Your task to perform on an android device: turn vacation reply on in the gmail app Image 0: 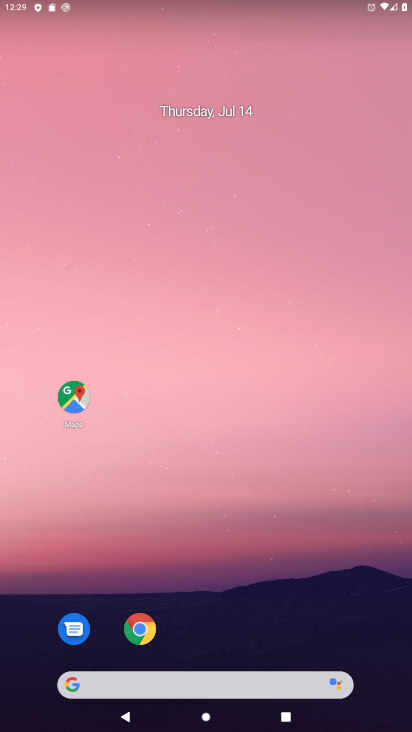
Step 0: drag from (209, 660) to (66, 55)
Your task to perform on an android device: turn vacation reply on in the gmail app Image 1: 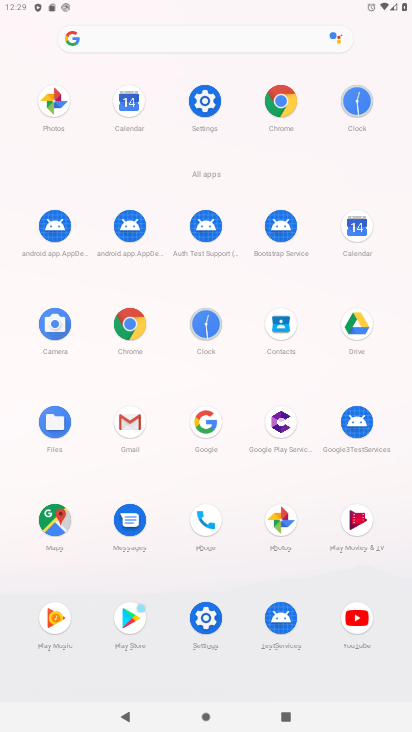
Step 1: click (140, 433)
Your task to perform on an android device: turn vacation reply on in the gmail app Image 2: 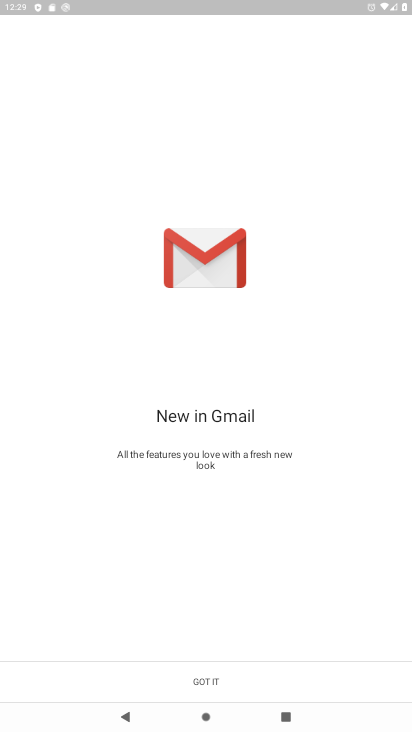
Step 2: click (210, 693)
Your task to perform on an android device: turn vacation reply on in the gmail app Image 3: 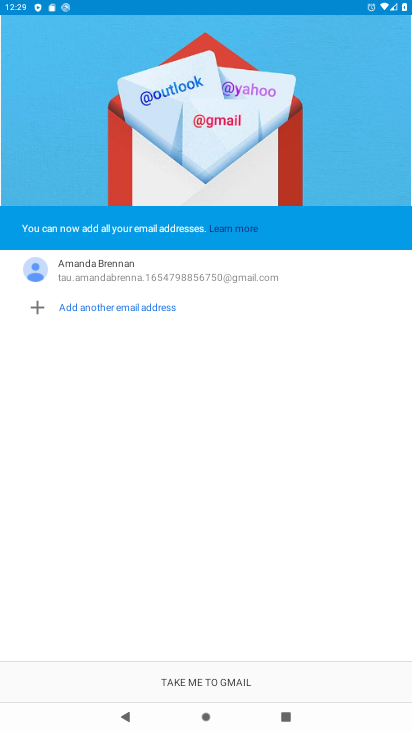
Step 3: click (210, 693)
Your task to perform on an android device: turn vacation reply on in the gmail app Image 4: 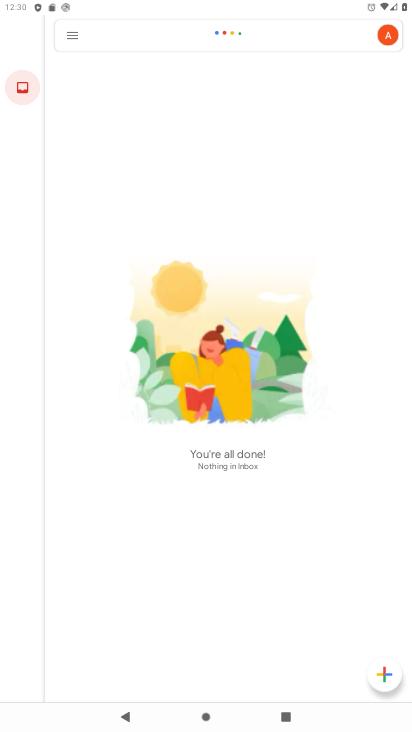
Step 4: click (67, 43)
Your task to perform on an android device: turn vacation reply on in the gmail app Image 5: 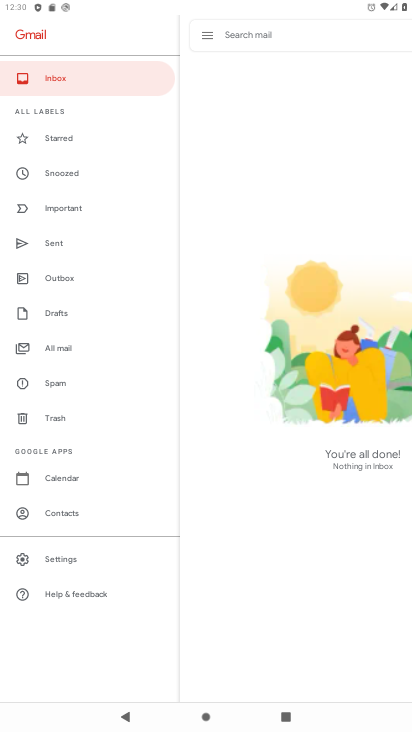
Step 5: click (60, 556)
Your task to perform on an android device: turn vacation reply on in the gmail app Image 6: 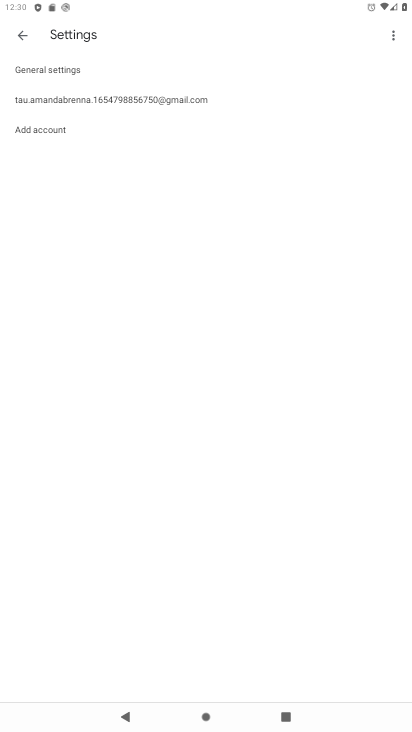
Step 6: click (93, 107)
Your task to perform on an android device: turn vacation reply on in the gmail app Image 7: 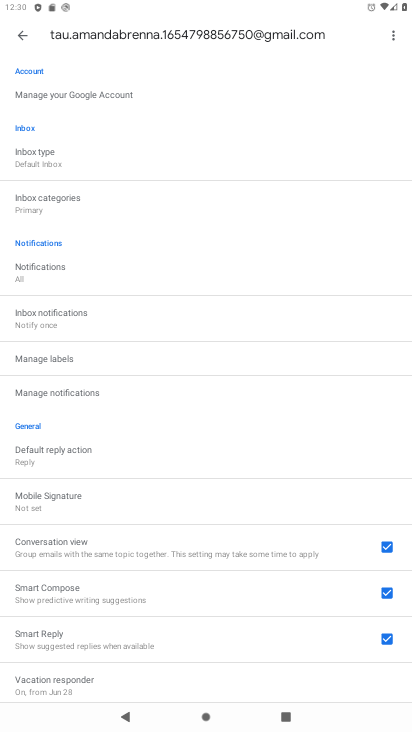
Step 7: click (107, 679)
Your task to perform on an android device: turn vacation reply on in the gmail app Image 8: 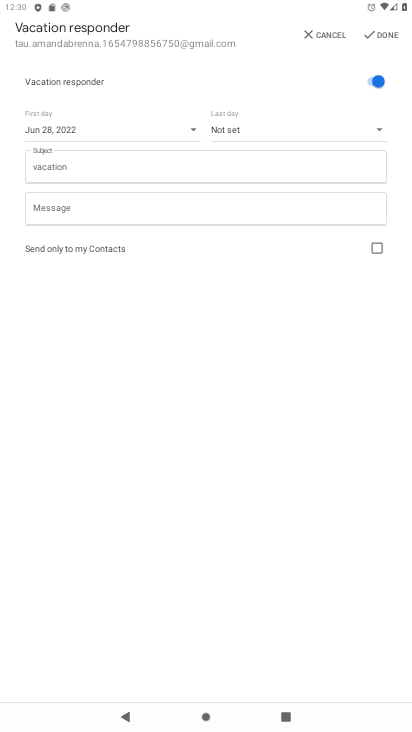
Step 8: click (390, 24)
Your task to perform on an android device: turn vacation reply on in the gmail app Image 9: 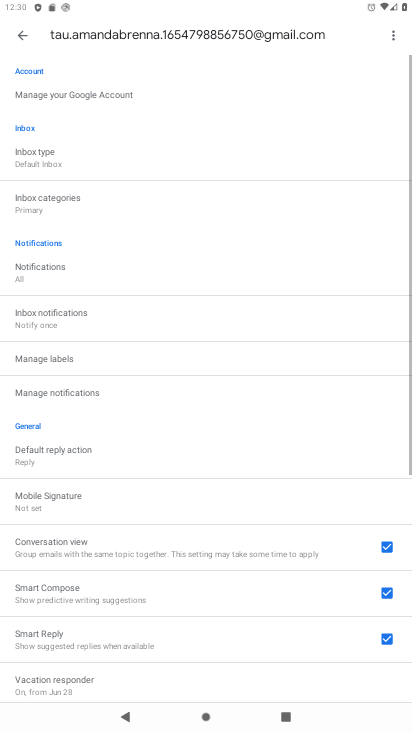
Step 9: task complete